Your task to perform on an android device: Do I have any events tomorrow? Image 0: 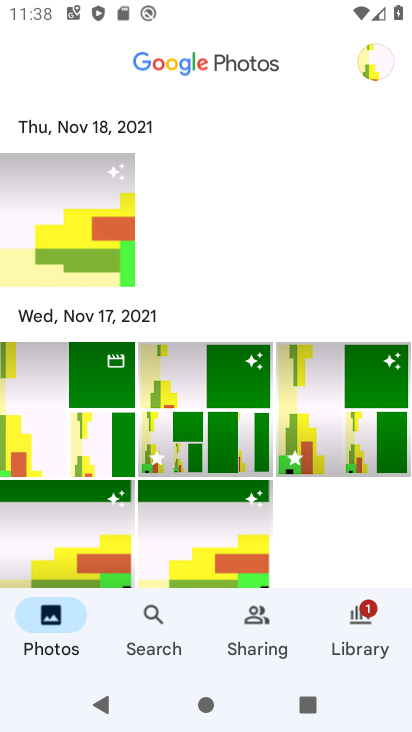
Step 0: press home button
Your task to perform on an android device: Do I have any events tomorrow? Image 1: 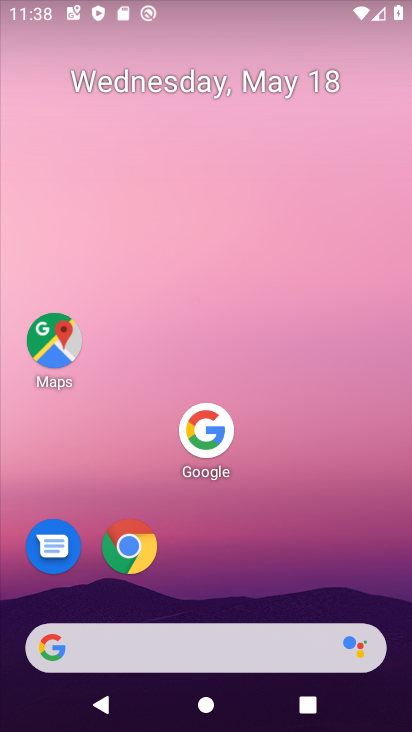
Step 1: drag from (206, 558) to (230, 80)
Your task to perform on an android device: Do I have any events tomorrow? Image 2: 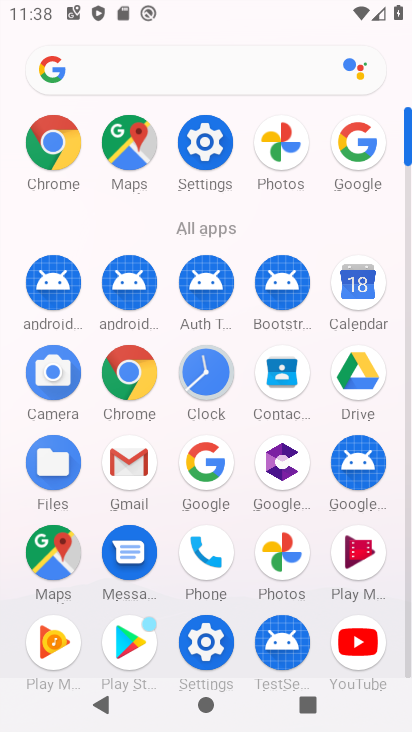
Step 2: click (356, 282)
Your task to perform on an android device: Do I have any events tomorrow? Image 3: 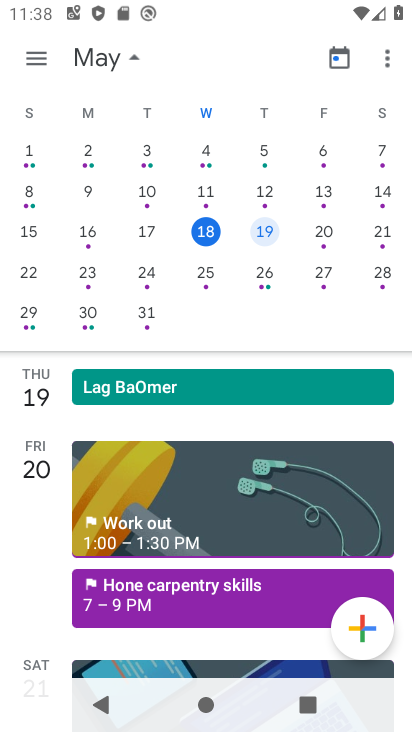
Step 3: click (266, 232)
Your task to perform on an android device: Do I have any events tomorrow? Image 4: 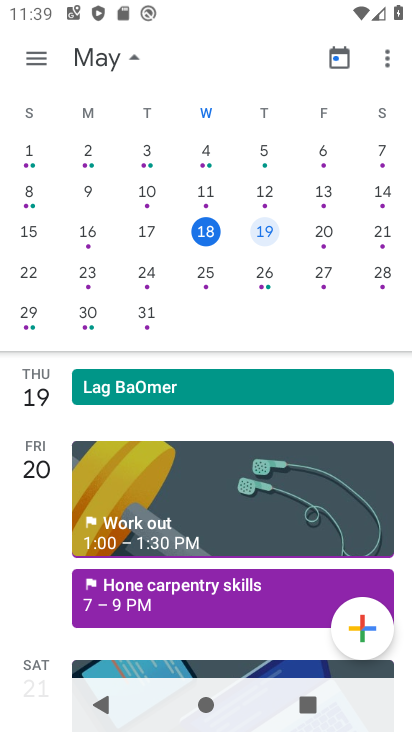
Step 4: task complete